Your task to perform on an android device: Open privacy settings Image 0: 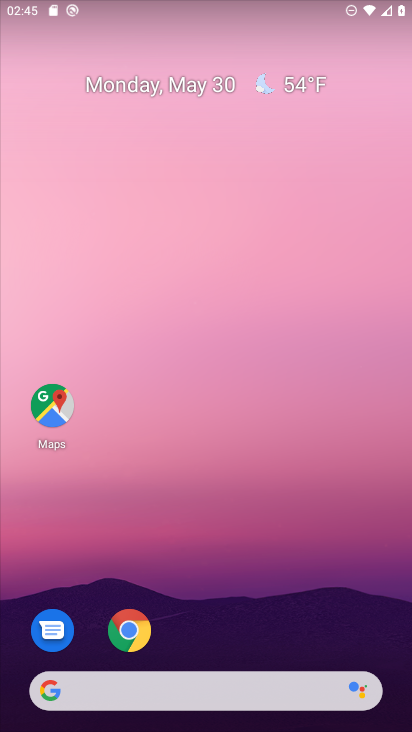
Step 0: press home button
Your task to perform on an android device: Open privacy settings Image 1: 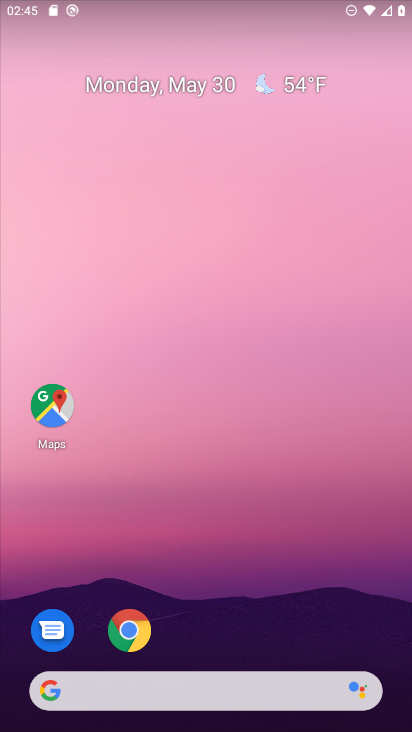
Step 1: drag from (198, 694) to (305, 233)
Your task to perform on an android device: Open privacy settings Image 2: 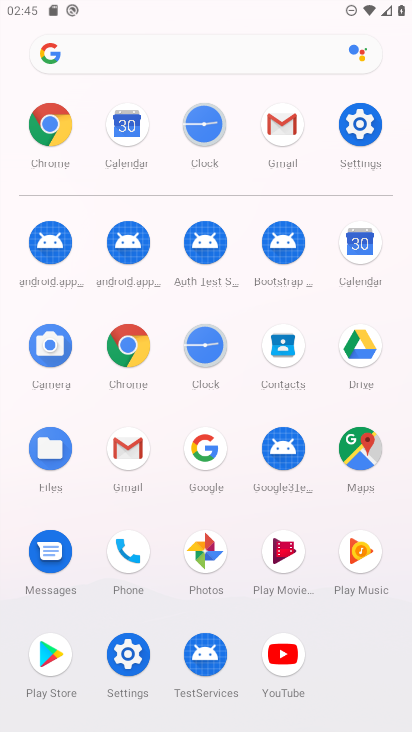
Step 2: click (349, 138)
Your task to perform on an android device: Open privacy settings Image 3: 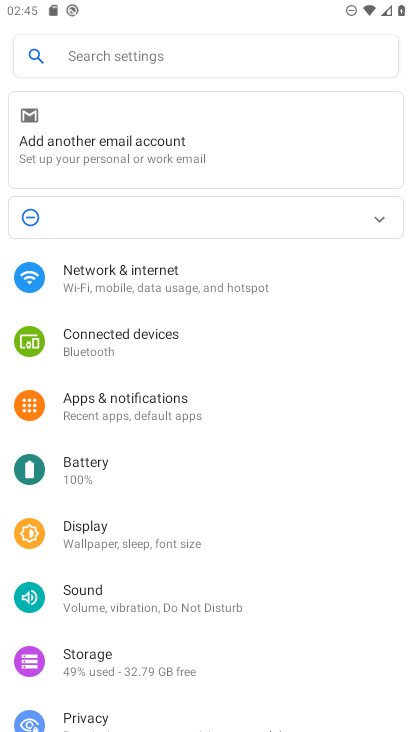
Step 3: drag from (222, 634) to (310, 373)
Your task to perform on an android device: Open privacy settings Image 4: 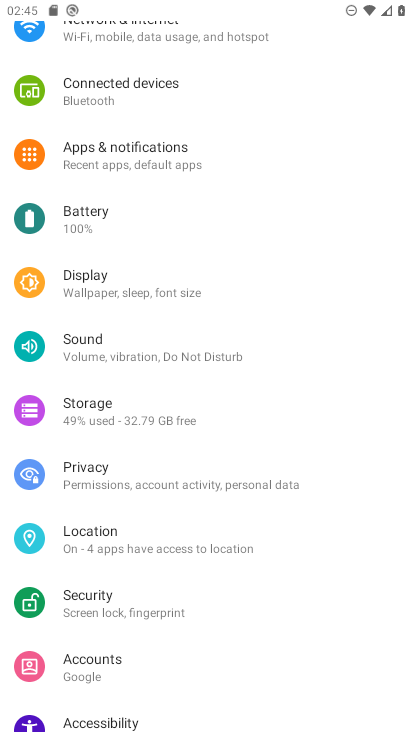
Step 4: click (91, 476)
Your task to perform on an android device: Open privacy settings Image 5: 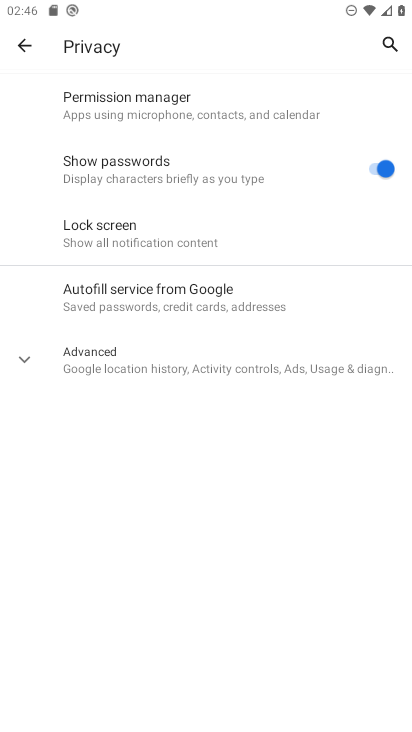
Step 5: task complete